Your task to perform on an android device: Go to Google maps Image 0: 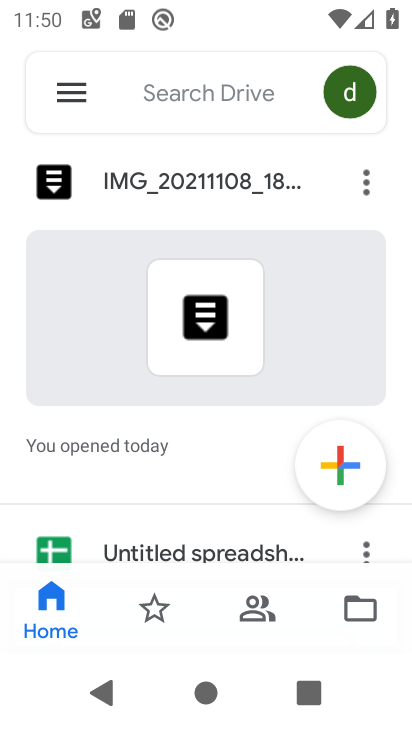
Step 0: press home button
Your task to perform on an android device: Go to Google maps Image 1: 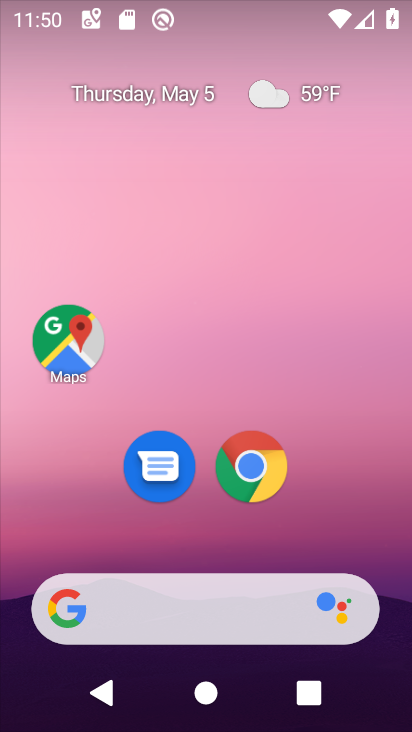
Step 1: click (73, 352)
Your task to perform on an android device: Go to Google maps Image 2: 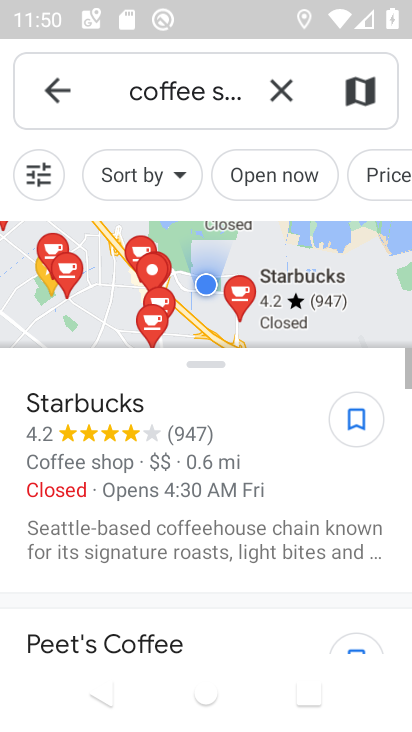
Step 2: task complete